Your task to perform on an android device: see tabs open on other devices in the chrome app Image 0: 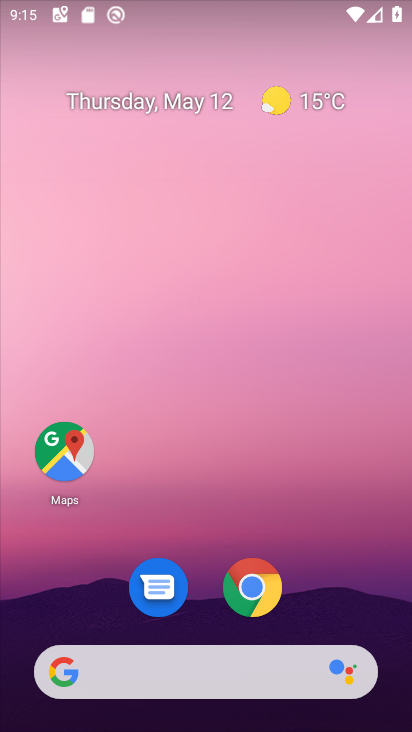
Step 0: drag from (379, 634) to (20, 29)
Your task to perform on an android device: see tabs open on other devices in the chrome app Image 1: 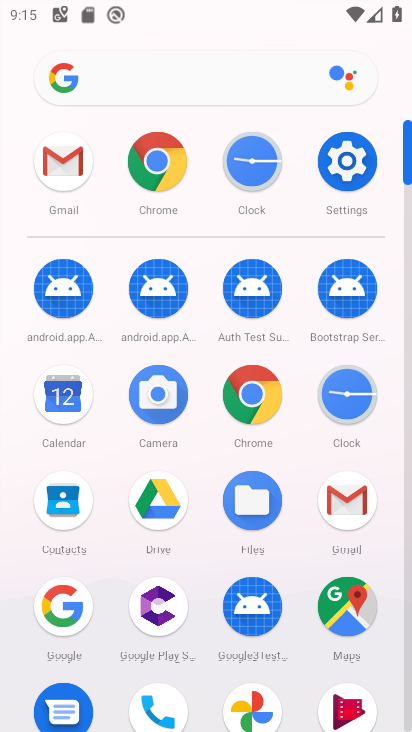
Step 1: click (260, 391)
Your task to perform on an android device: see tabs open on other devices in the chrome app Image 2: 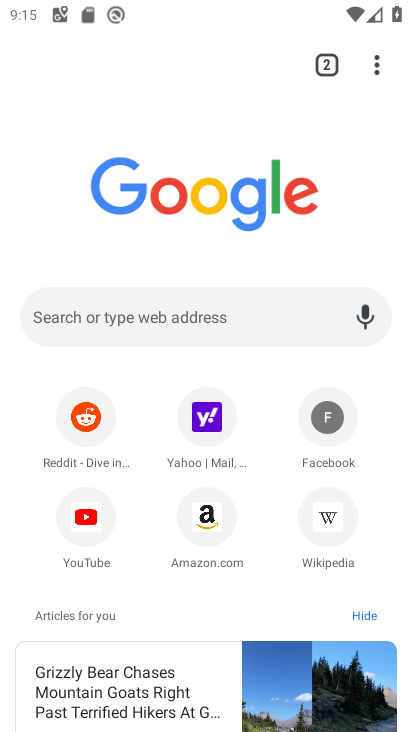
Step 2: task complete